Your task to perform on an android device: Search for seafood restaurants on Google Maps Image 0: 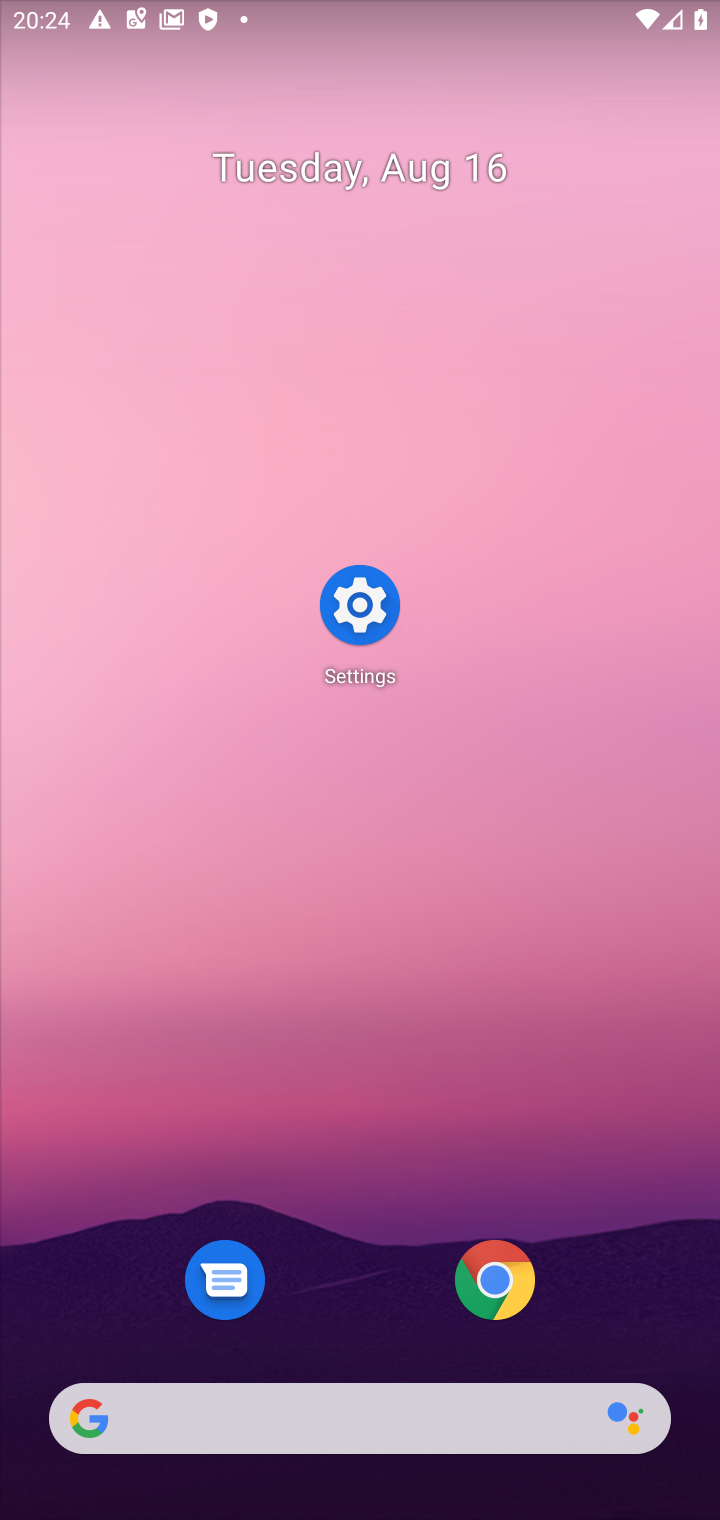
Step 0: drag from (354, 1145) to (345, 183)
Your task to perform on an android device: Search for seafood restaurants on Google Maps Image 1: 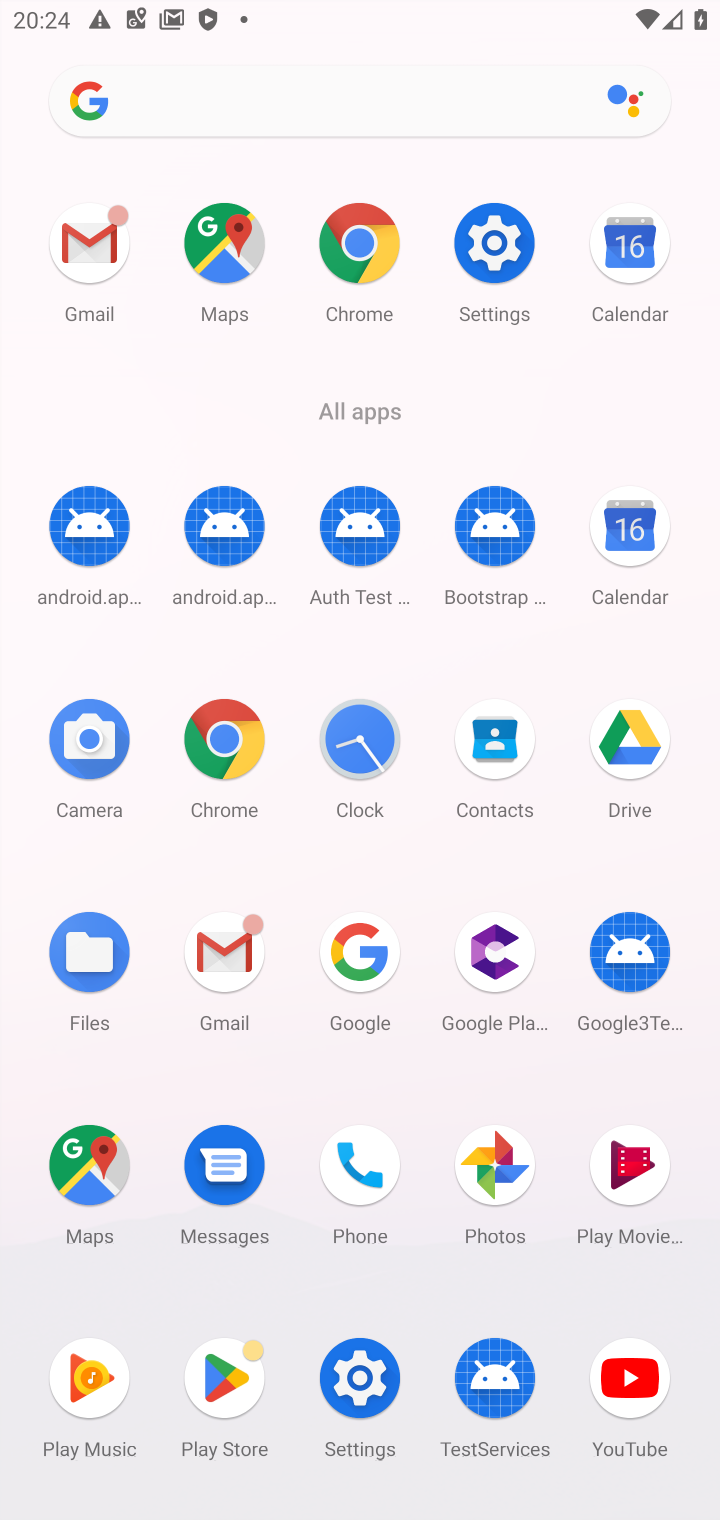
Step 1: click (93, 1164)
Your task to perform on an android device: Search for seafood restaurants on Google Maps Image 2: 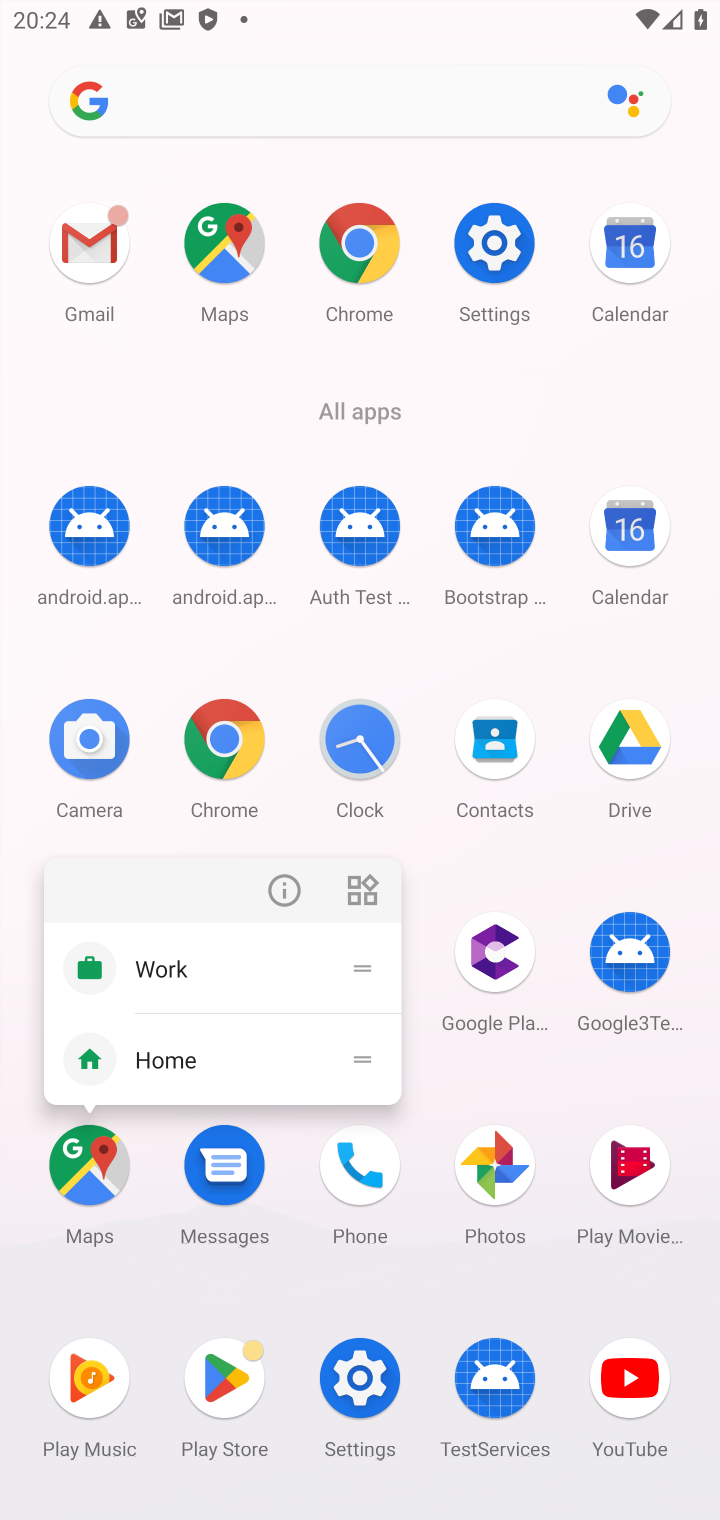
Step 2: click (88, 1193)
Your task to perform on an android device: Search for seafood restaurants on Google Maps Image 3: 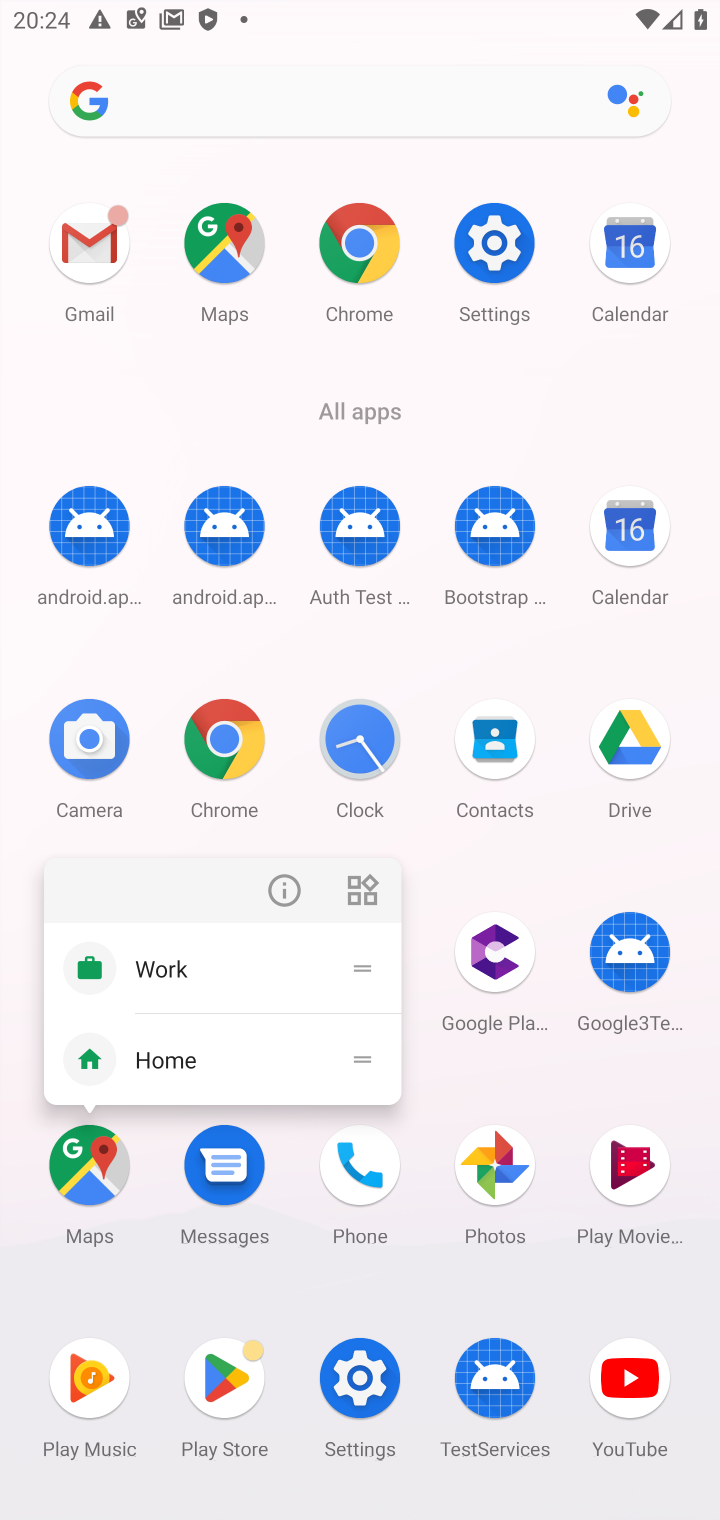
Step 3: click (88, 1193)
Your task to perform on an android device: Search for seafood restaurants on Google Maps Image 4: 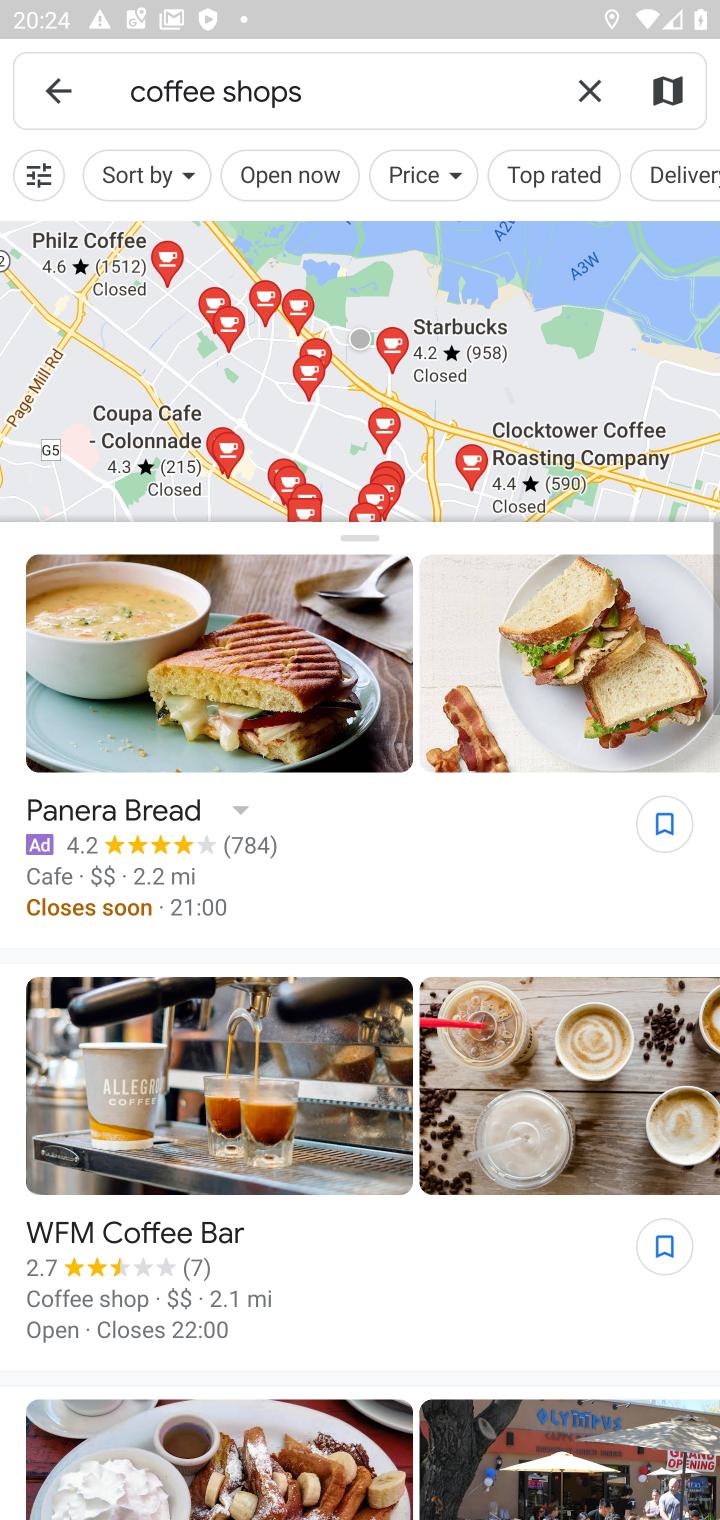
Step 4: click (590, 92)
Your task to perform on an android device: Search for seafood restaurants on Google Maps Image 5: 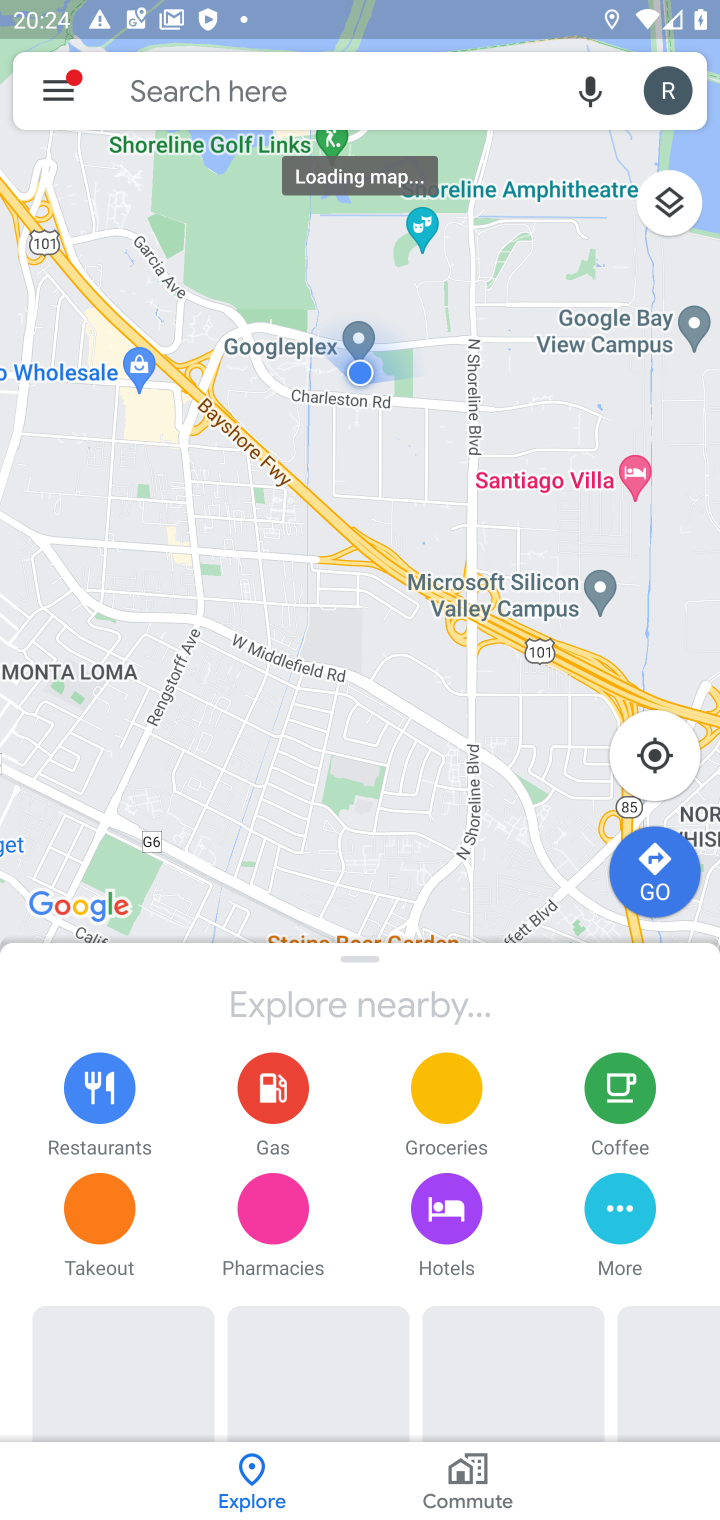
Step 5: click (343, 94)
Your task to perform on an android device: Search for seafood restaurants on Google Maps Image 6: 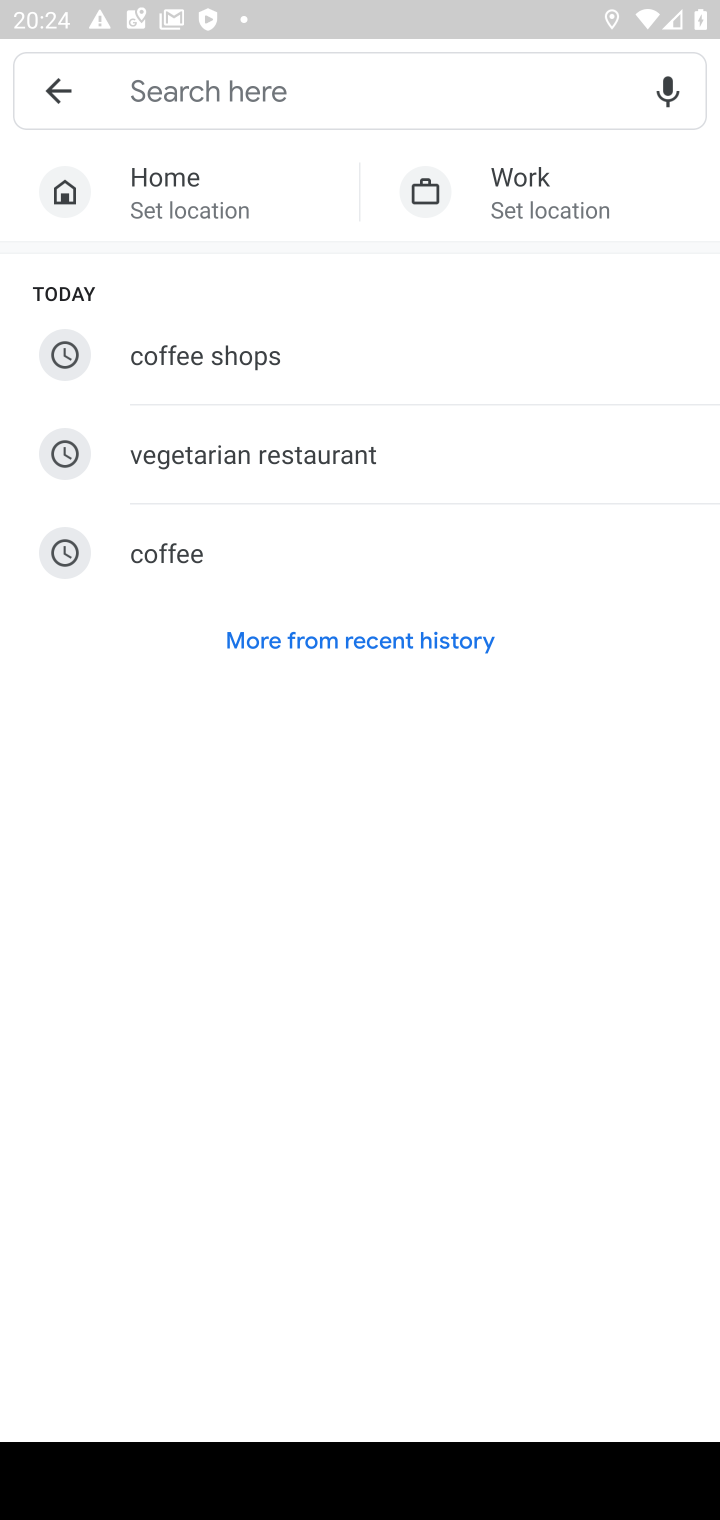
Step 6: type "seafood restaurants"
Your task to perform on an android device: Search for seafood restaurants on Google Maps Image 7: 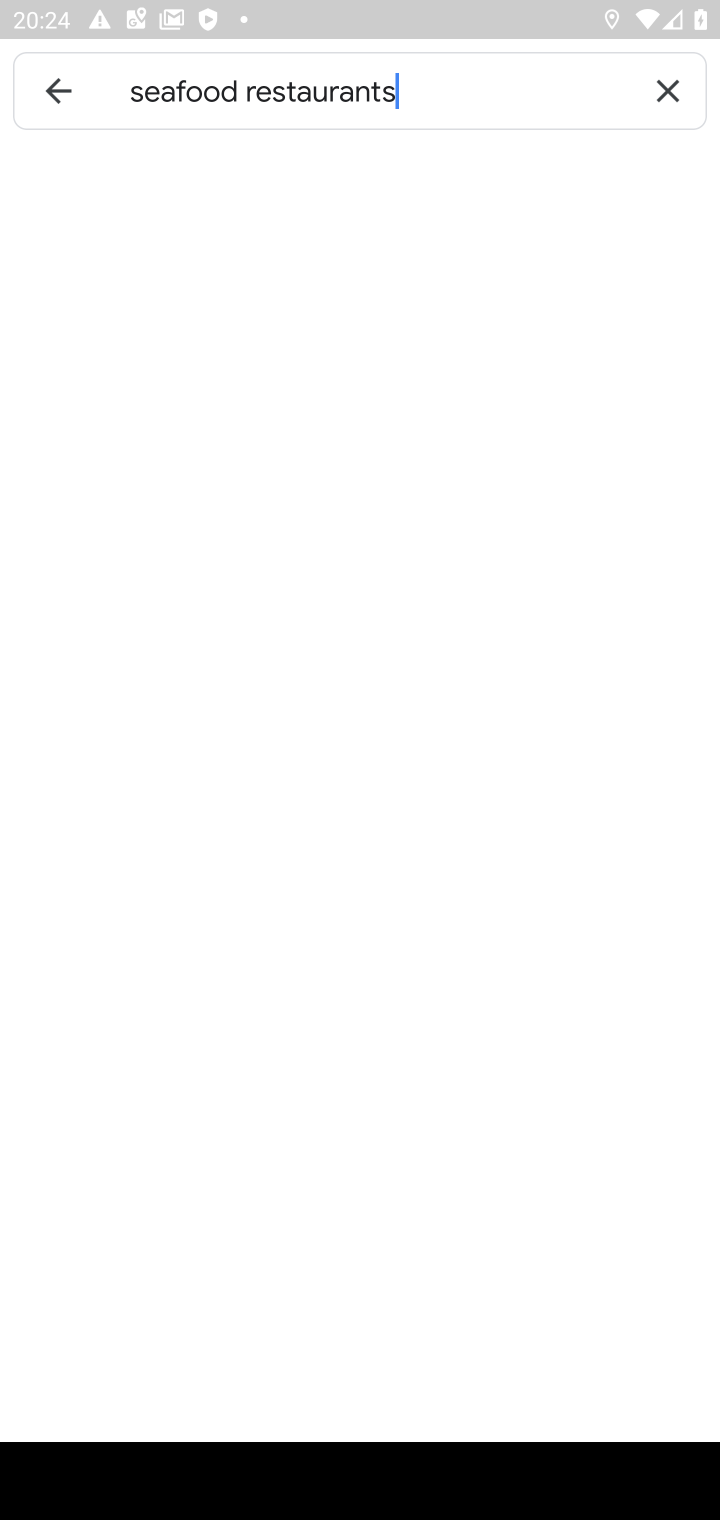
Step 7: click (366, 86)
Your task to perform on an android device: Search for seafood restaurants on Google Maps Image 8: 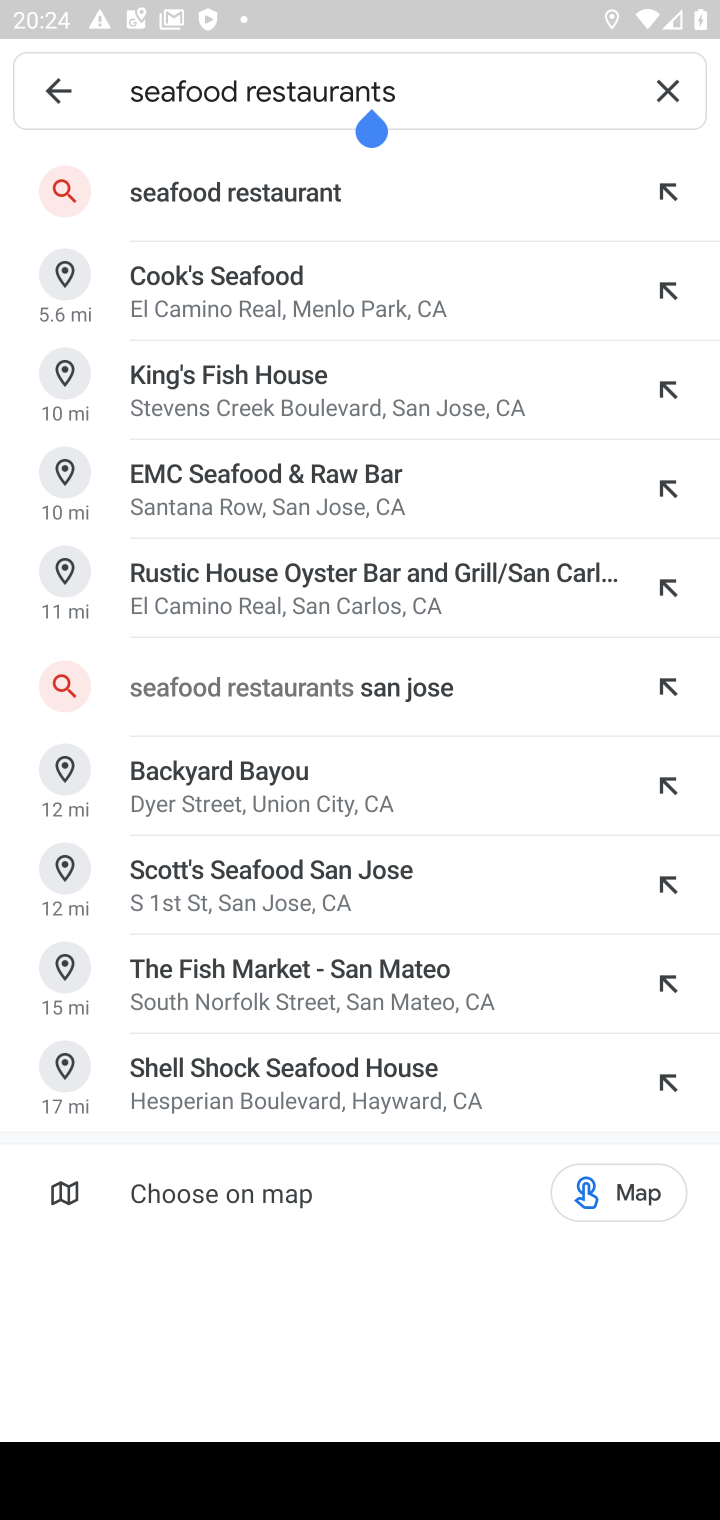
Step 8: click (250, 211)
Your task to perform on an android device: Search for seafood restaurants on Google Maps Image 9: 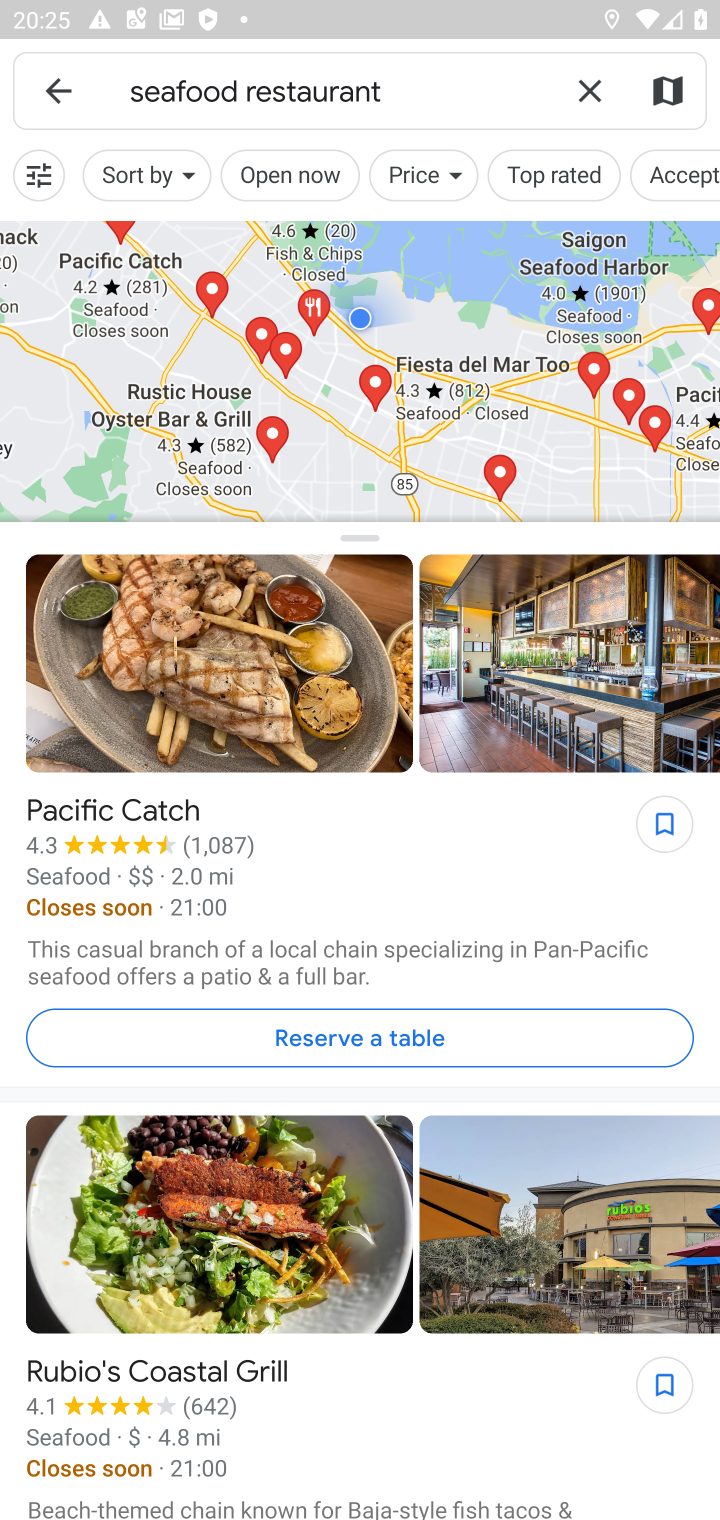
Step 9: task complete